Your task to perform on an android device: Show me recent news Image 0: 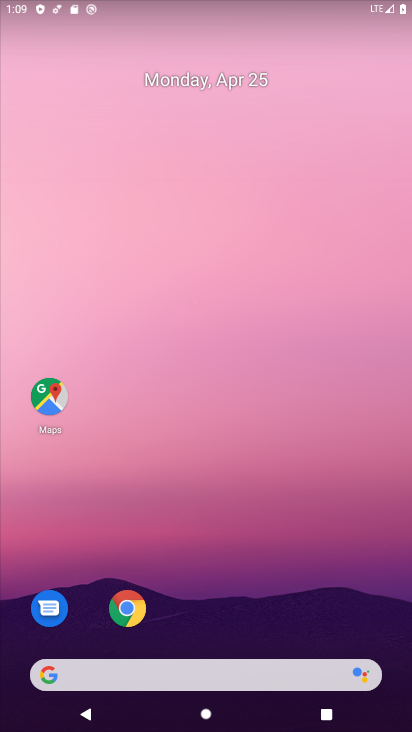
Step 0: drag from (215, 614) to (274, 135)
Your task to perform on an android device: Show me recent news Image 1: 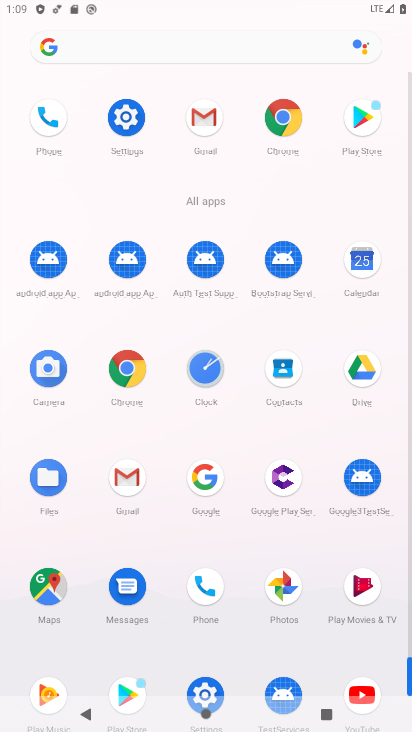
Step 1: click (204, 497)
Your task to perform on an android device: Show me recent news Image 2: 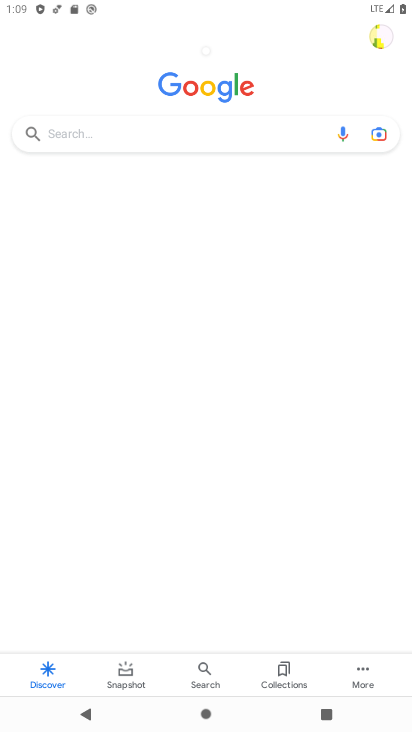
Step 2: click (172, 141)
Your task to perform on an android device: Show me recent news Image 3: 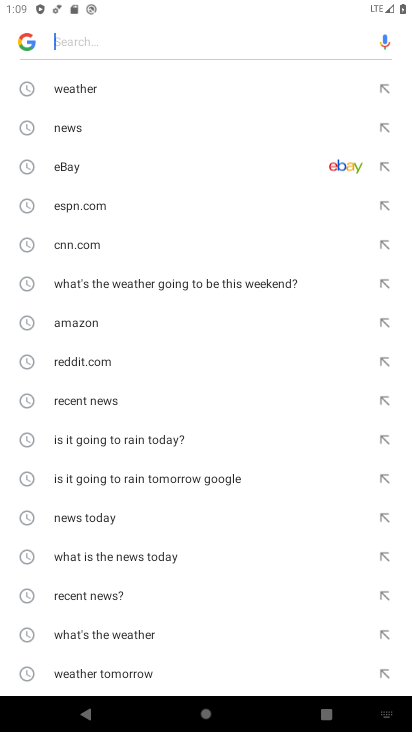
Step 3: click (104, 405)
Your task to perform on an android device: Show me recent news Image 4: 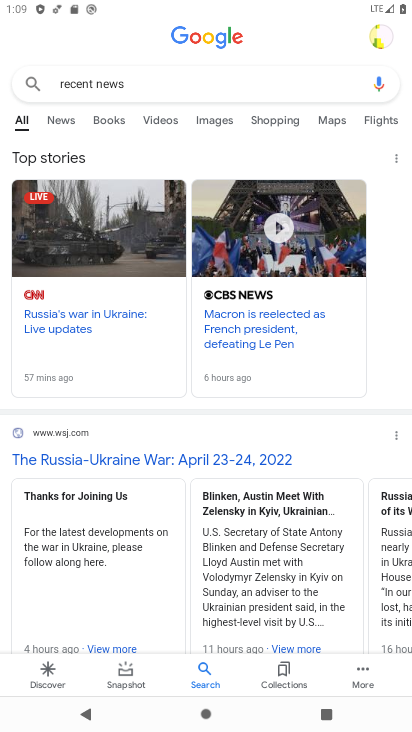
Step 4: task complete